Your task to perform on an android device: Go to sound settings Image 0: 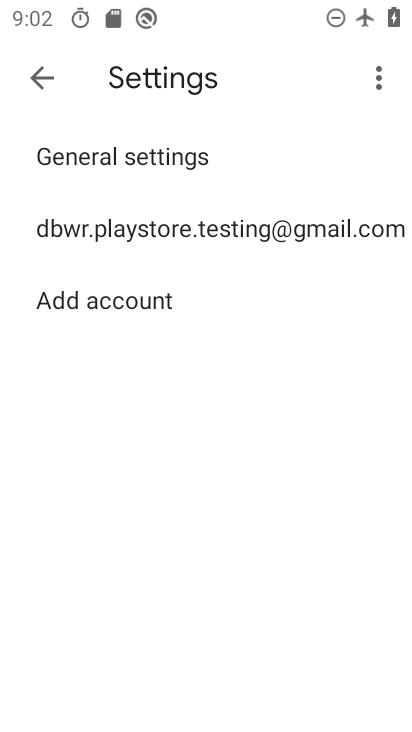
Step 0: press home button
Your task to perform on an android device: Go to sound settings Image 1: 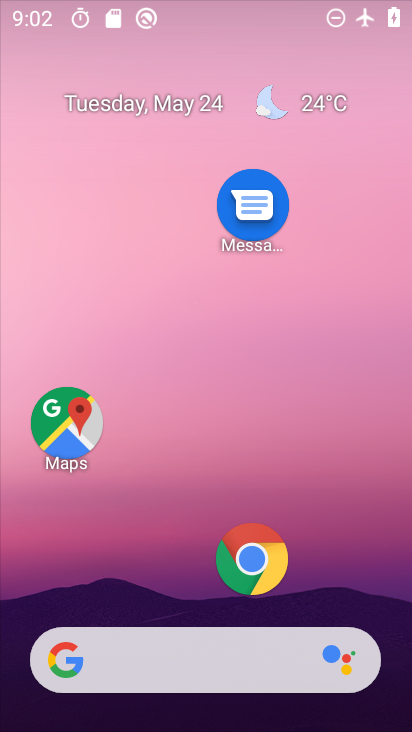
Step 1: drag from (177, 547) to (154, 251)
Your task to perform on an android device: Go to sound settings Image 2: 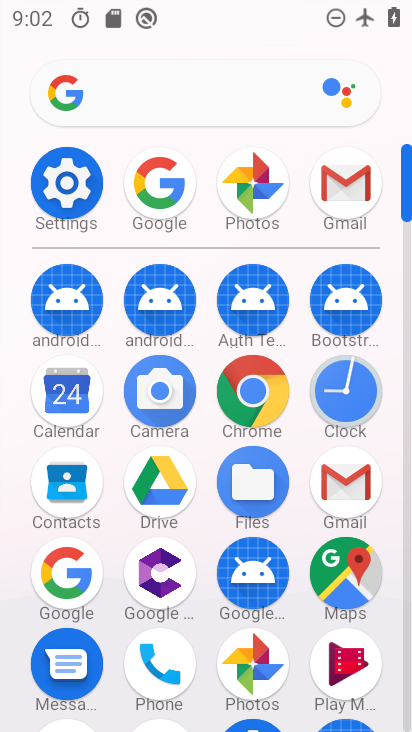
Step 2: click (83, 199)
Your task to perform on an android device: Go to sound settings Image 3: 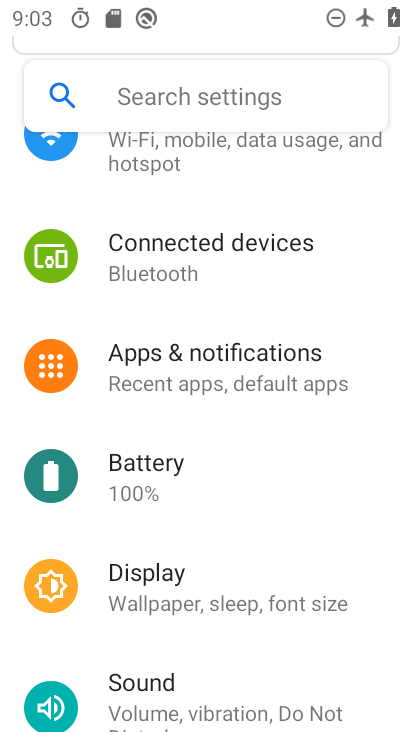
Step 3: click (202, 671)
Your task to perform on an android device: Go to sound settings Image 4: 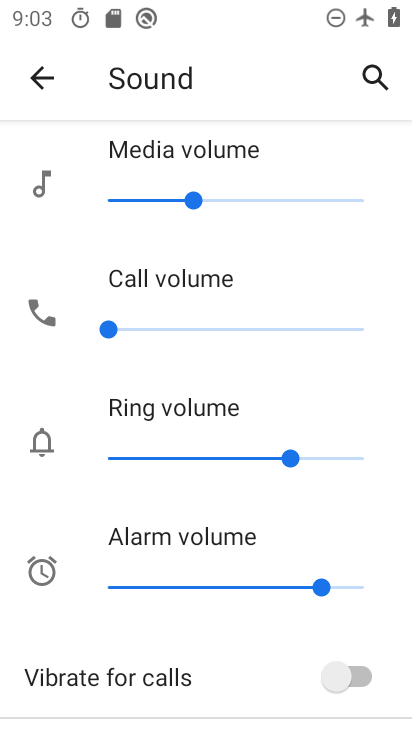
Step 4: task complete